Your task to perform on an android device: open app "Cash App" Image 0: 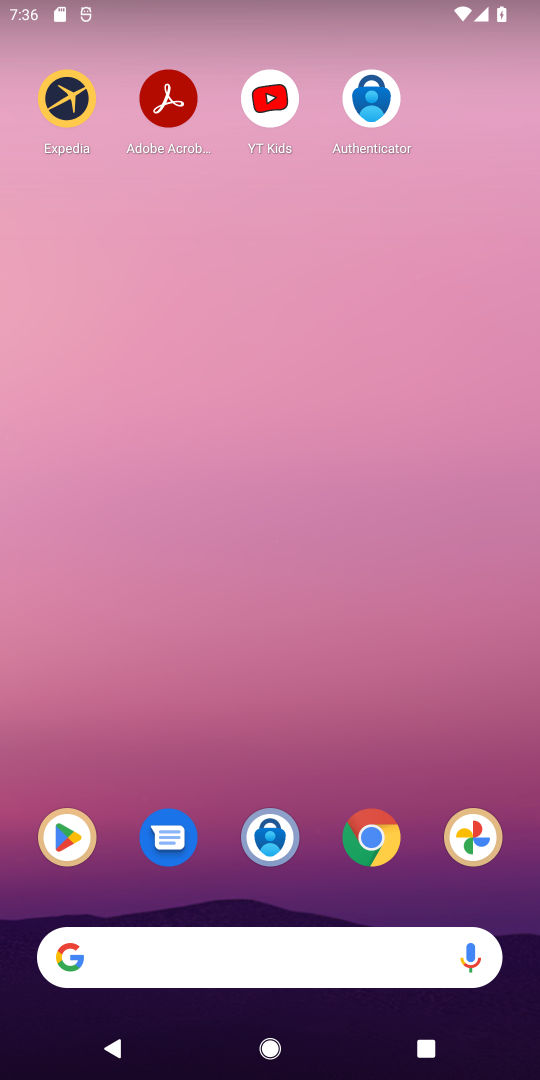
Step 0: click (55, 832)
Your task to perform on an android device: open app "Cash App" Image 1: 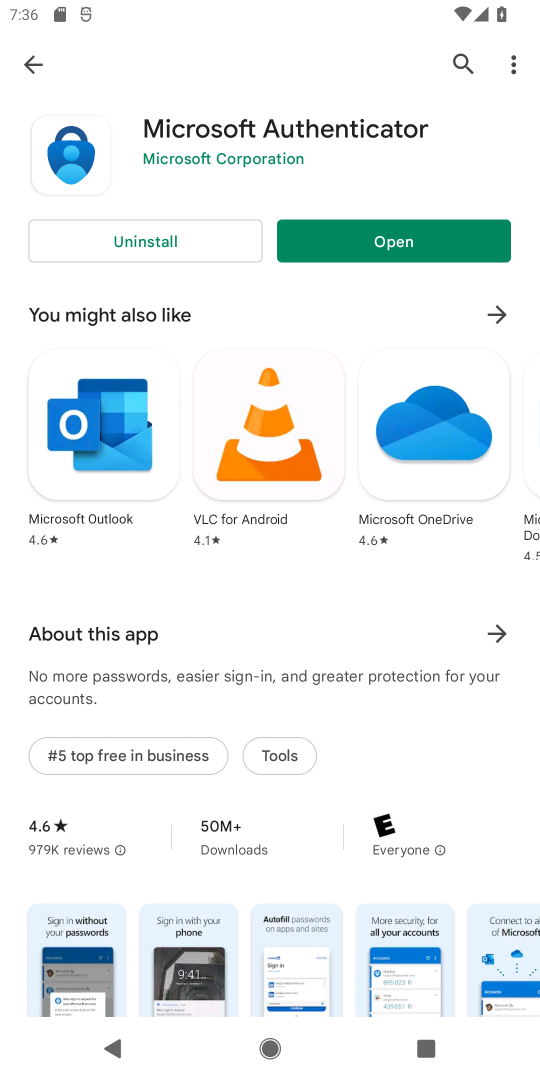
Step 1: click (454, 63)
Your task to perform on an android device: open app "Cash App" Image 2: 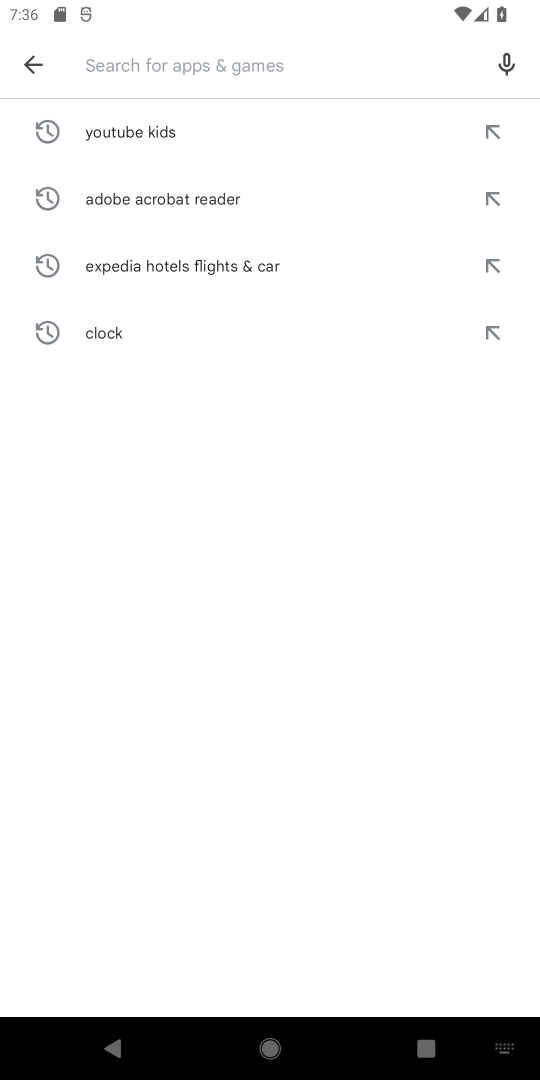
Step 2: type "Cash App"
Your task to perform on an android device: open app "Cash App" Image 3: 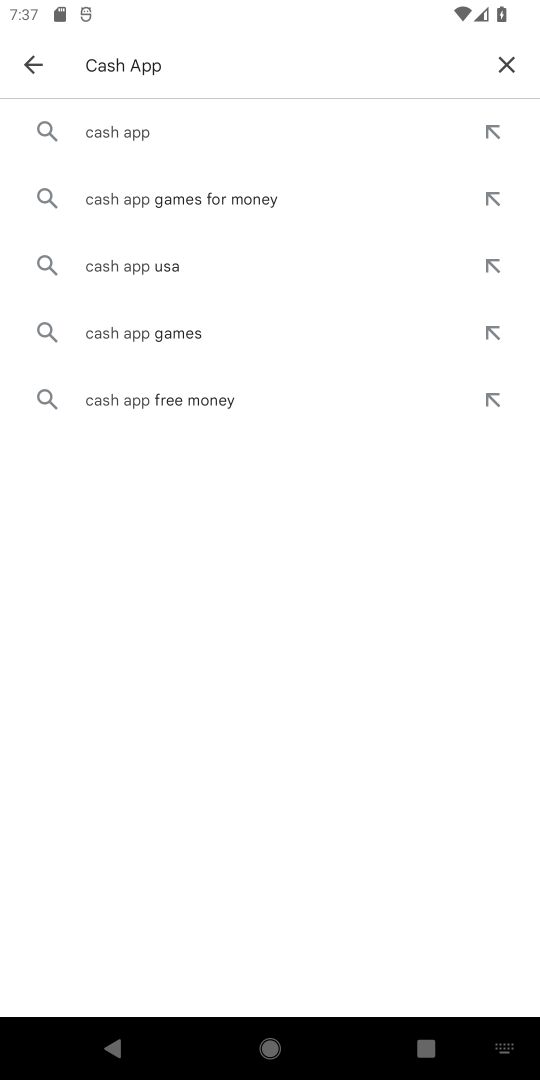
Step 3: click (129, 124)
Your task to perform on an android device: open app "Cash App" Image 4: 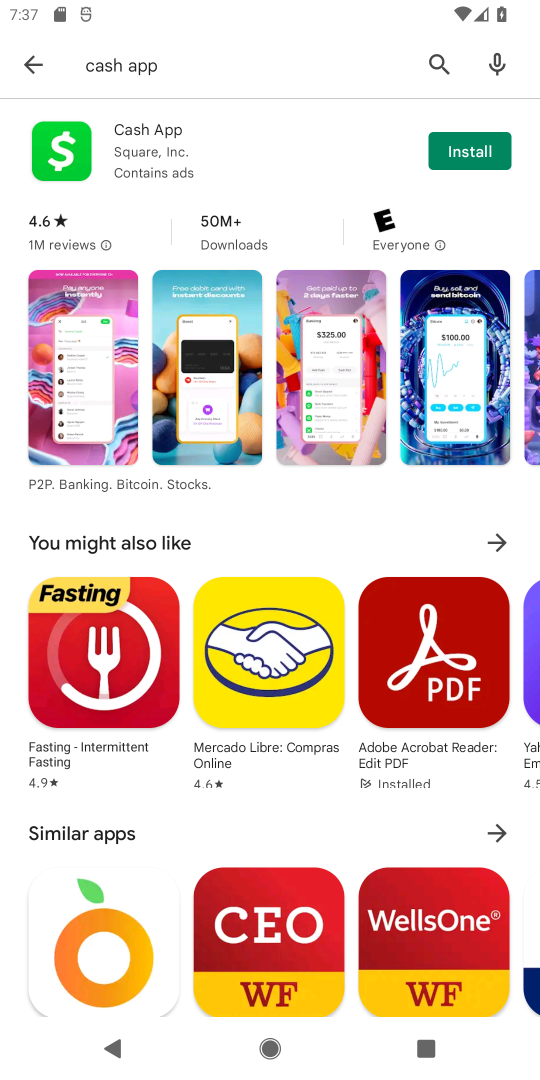
Step 4: click (129, 124)
Your task to perform on an android device: open app "Cash App" Image 5: 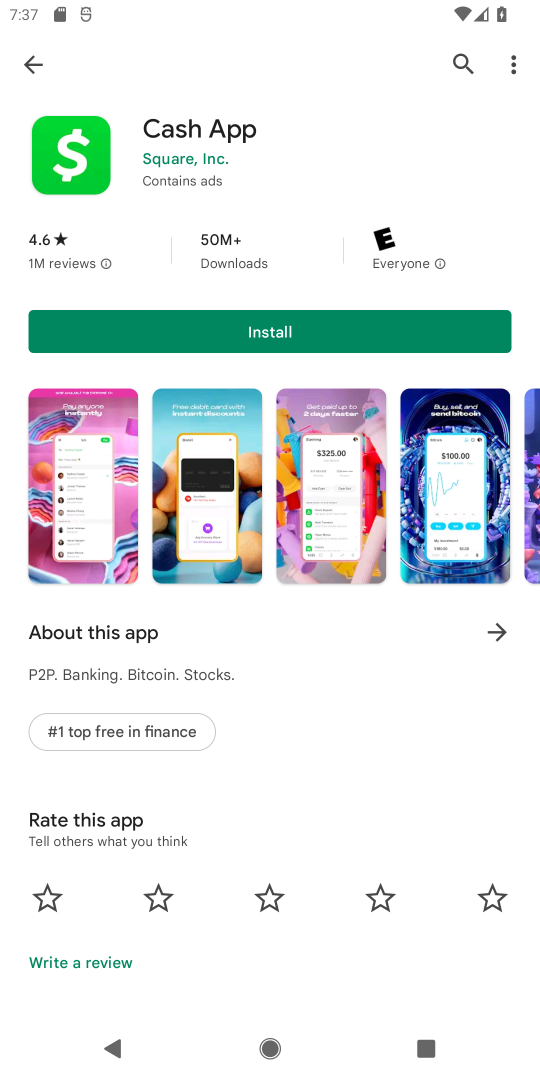
Step 5: task complete